Your task to perform on an android device: open a bookmark in the chrome app Image 0: 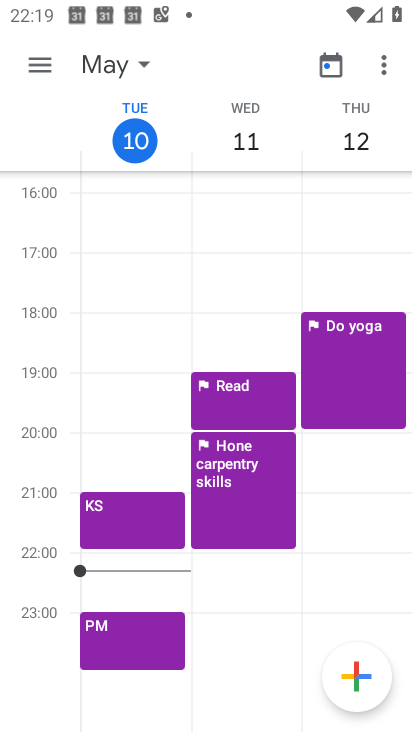
Step 0: press home button
Your task to perform on an android device: open a bookmark in the chrome app Image 1: 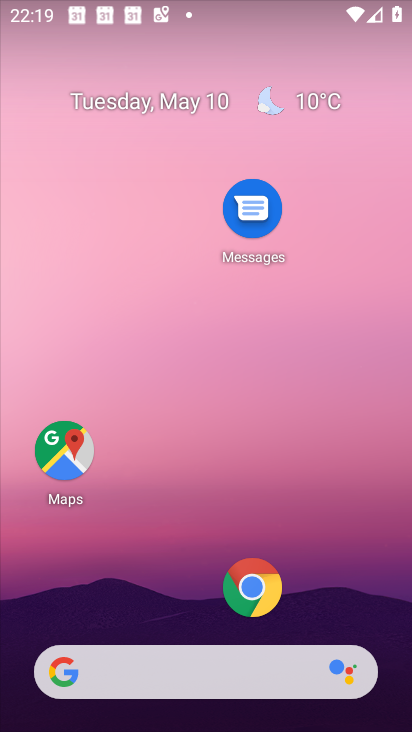
Step 1: click (234, 577)
Your task to perform on an android device: open a bookmark in the chrome app Image 2: 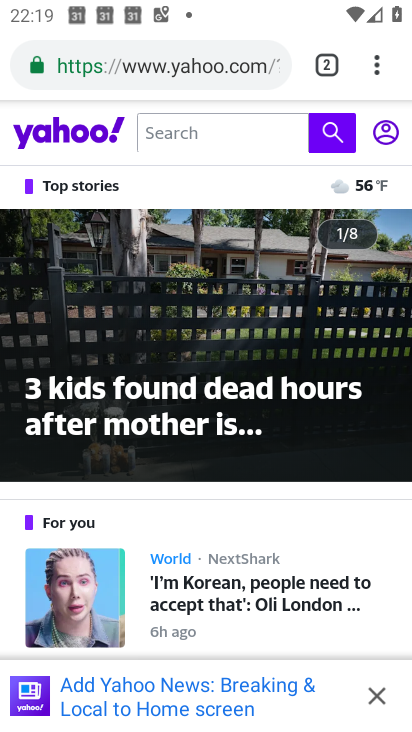
Step 2: click (382, 70)
Your task to perform on an android device: open a bookmark in the chrome app Image 3: 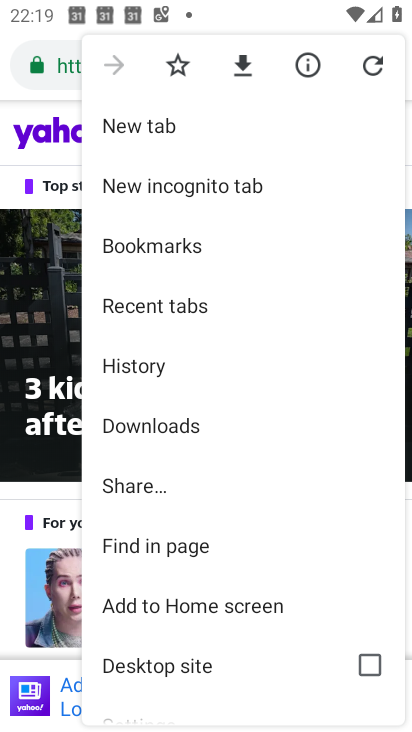
Step 3: click (179, 241)
Your task to perform on an android device: open a bookmark in the chrome app Image 4: 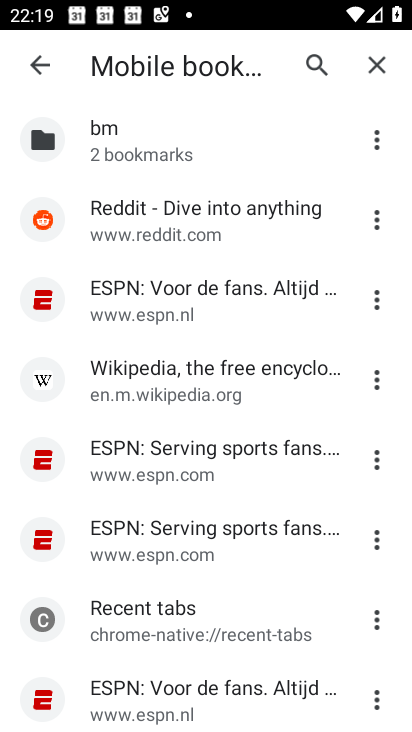
Step 4: click (165, 386)
Your task to perform on an android device: open a bookmark in the chrome app Image 5: 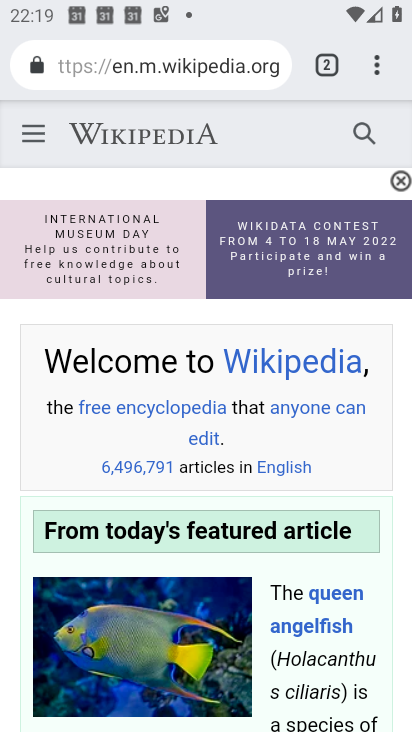
Step 5: task complete